Your task to perform on an android device: change the clock display to digital Image 0: 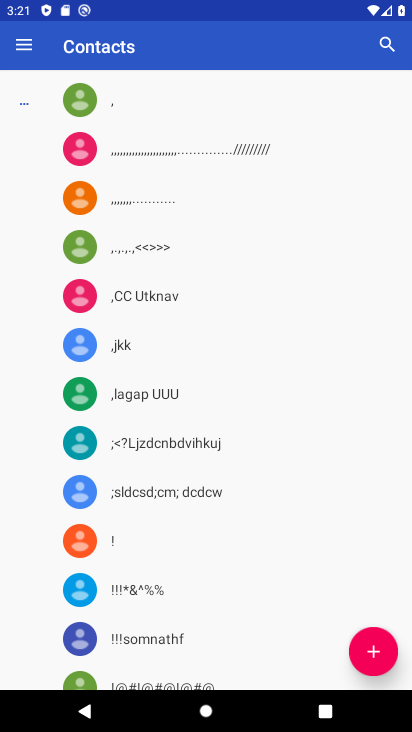
Step 0: press home button
Your task to perform on an android device: change the clock display to digital Image 1: 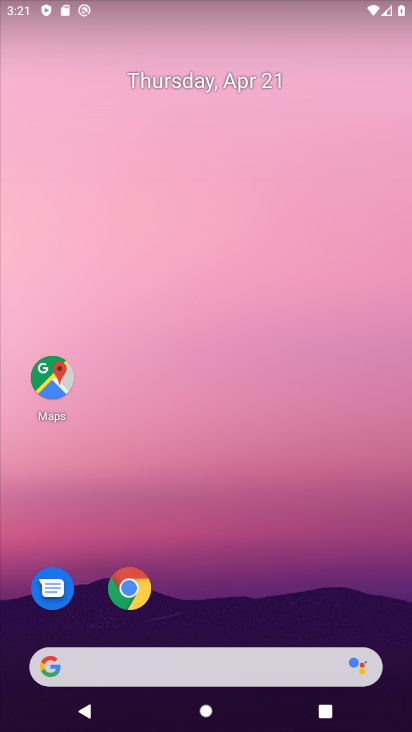
Step 1: drag from (250, 557) to (247, 99)
Your task to perform on an android device: change the clock display to digital Image 2: 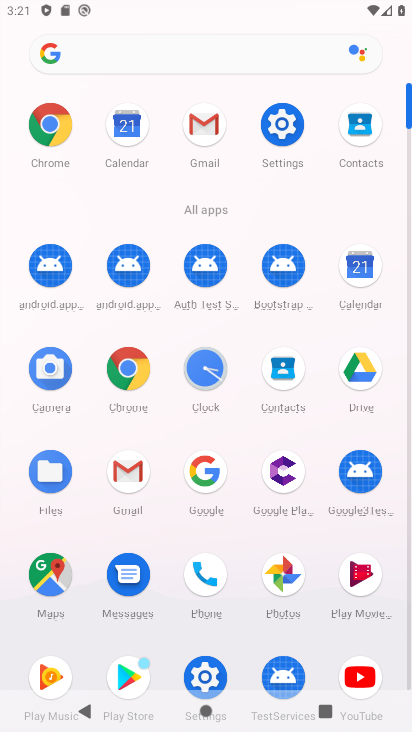
Step 2: click (205, 376)
Your task to perform on an android device: change the clock display to digital Image 3: 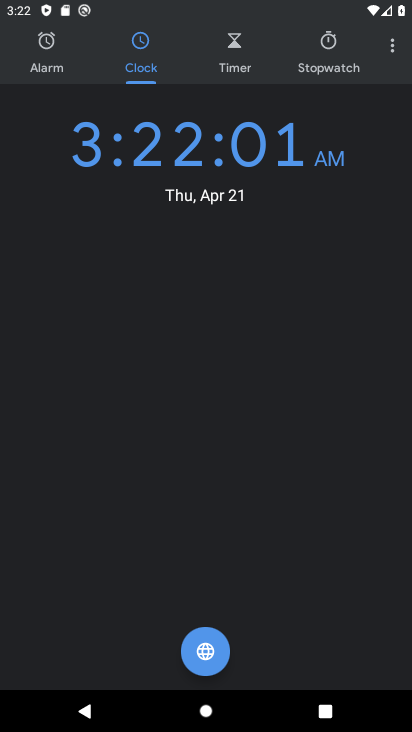
Step 3: click (388, 60)
Your task to perform on an android device: change the clock display to digital Image 4: 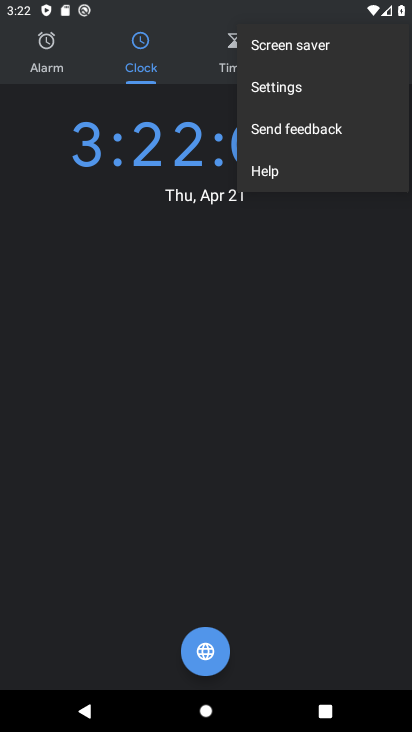
Step 4: click (302, 89)
Your task to perform on an android device: change the clock display to digital Image 5: 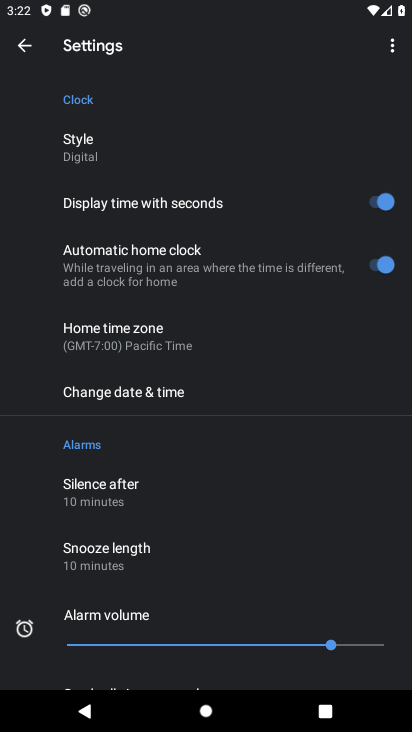
Step 5: click (158, 140)
Your task to perform on an android device: change the clock display to digital Image 6: 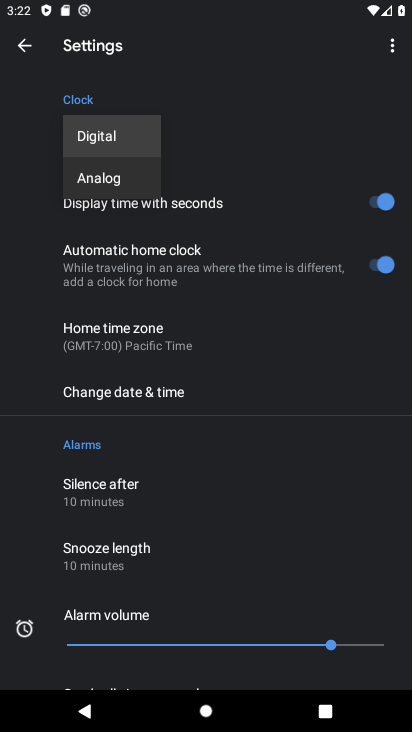
Step 6: click (110, 149)
Your task to perform on an android device: change the clock display to digital Image 7: 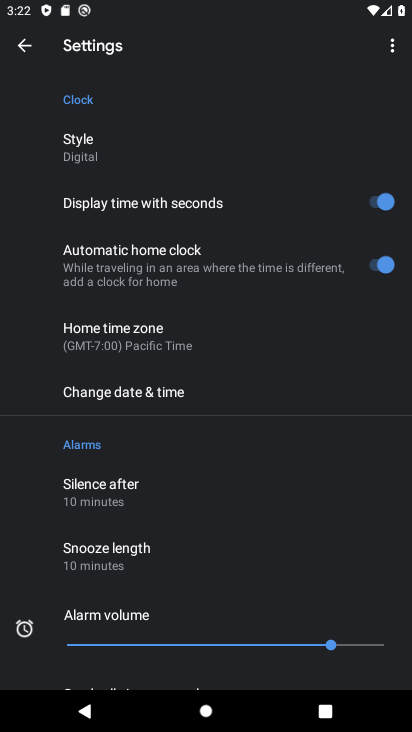
Step 7: task complete